Your task to perform on an android device: toggle javascript in the chrome app Image 0: 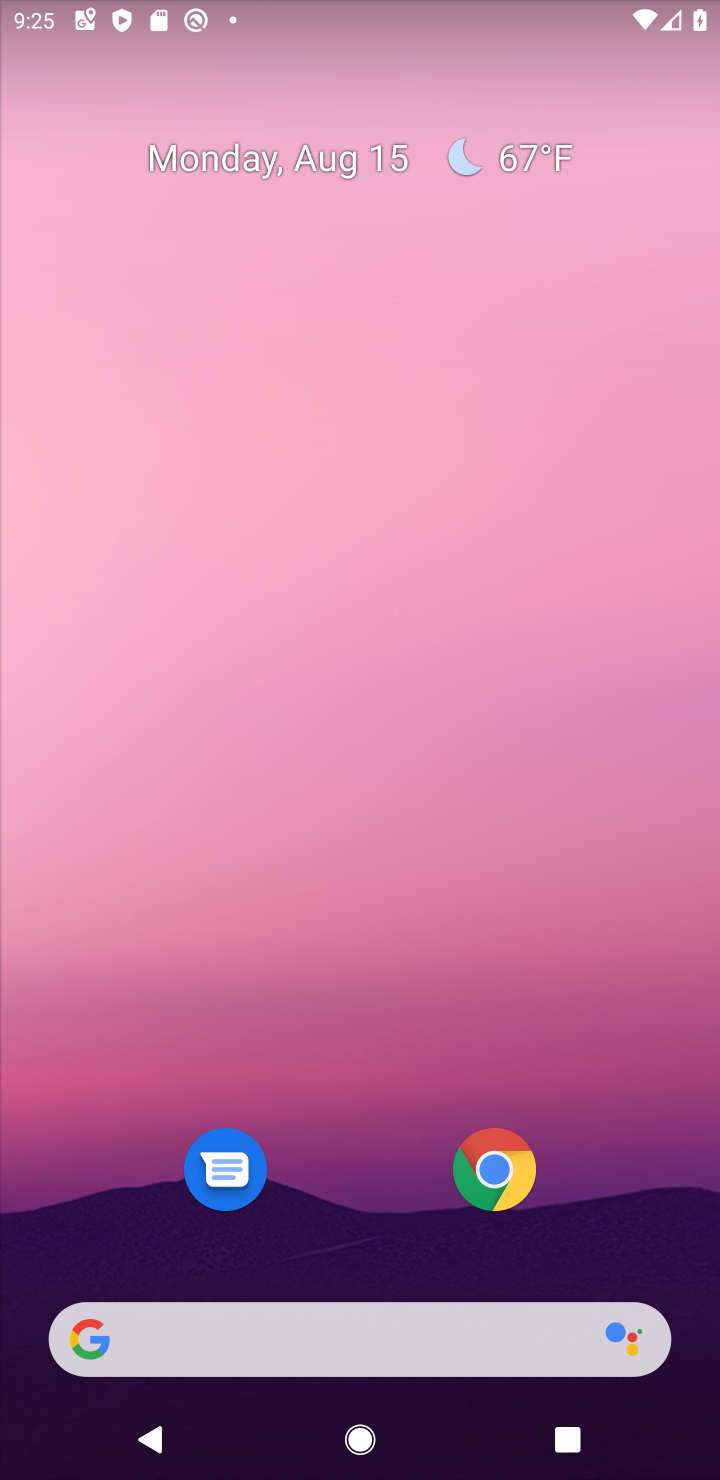
Step 0: click (496, 1175)
Your task to perform on an android device: toggle javascript in the chrome app Image 1: 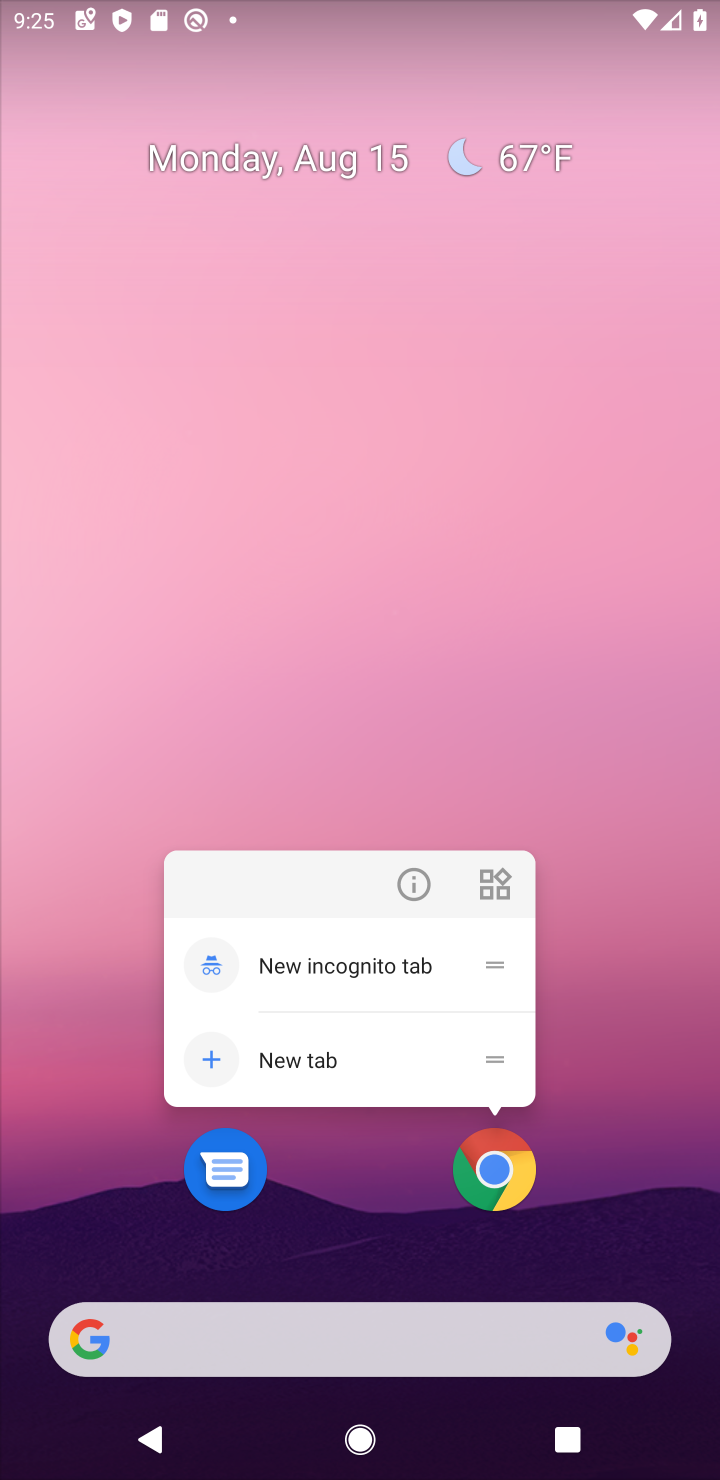
Step 1: click (496, 1179)
Your task to perform on an android device: toggle javascript in the chrome app Image 2: 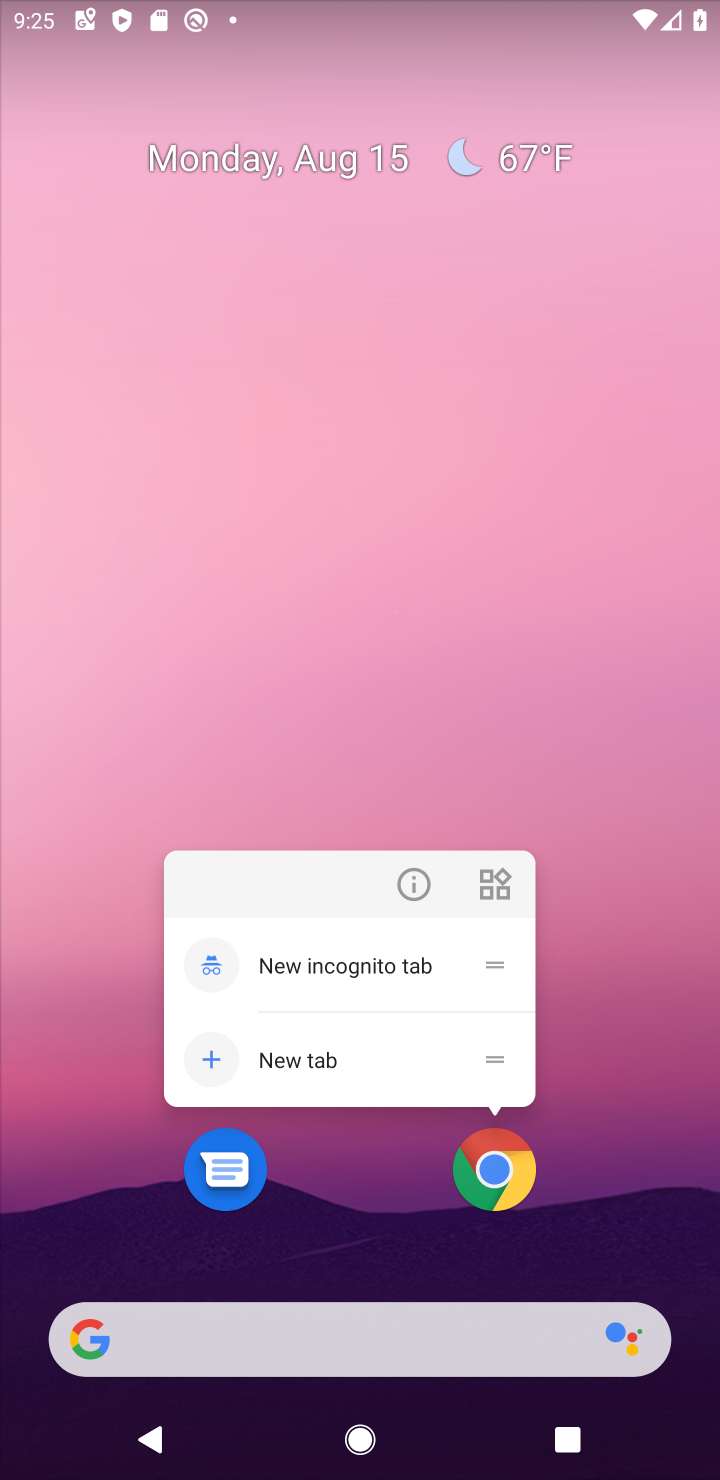
Step 2: click (496, 1179)
Your task to perform on an android device: toggle javascript in the chrome app Image 3: 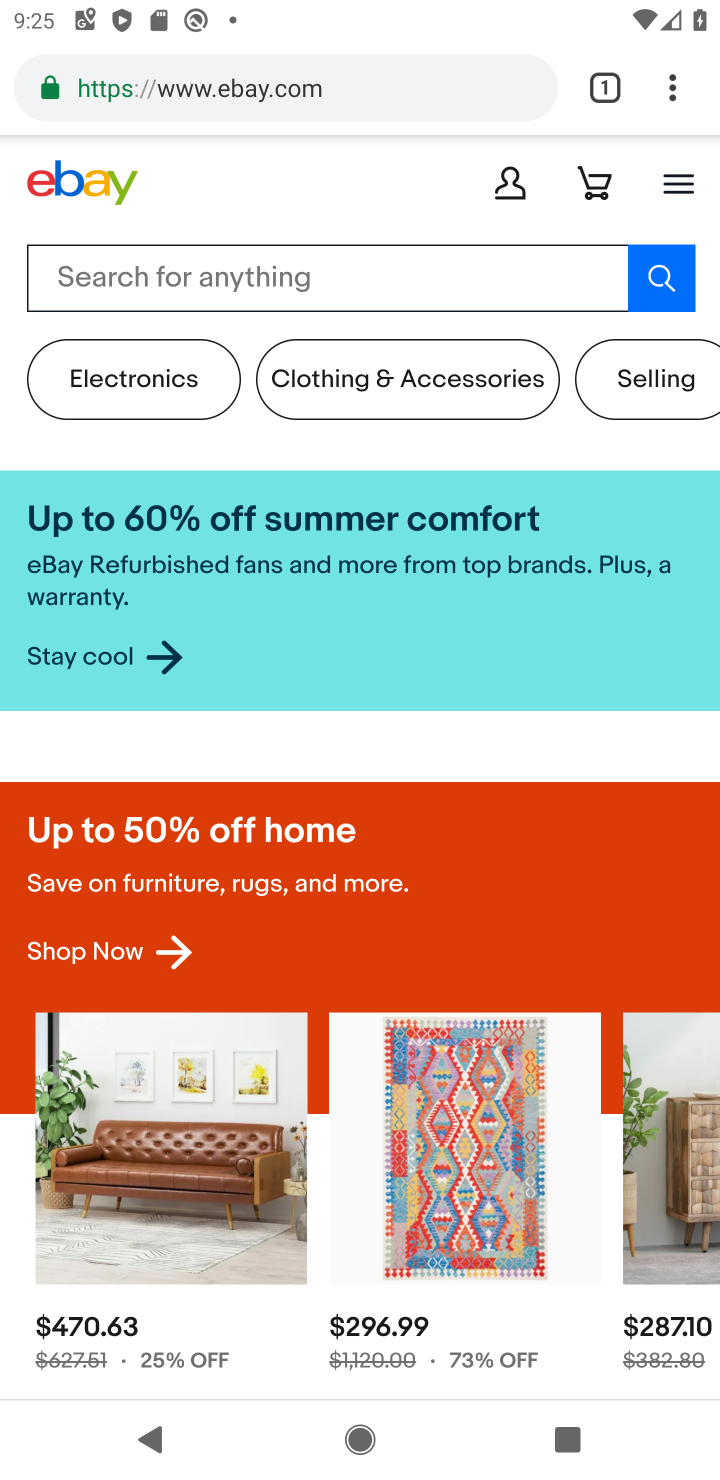
Step 3: drag from (676, 80) to (343, 1061)
Your task to perform on an android device: toggle javascript in the chrome app Image 4: 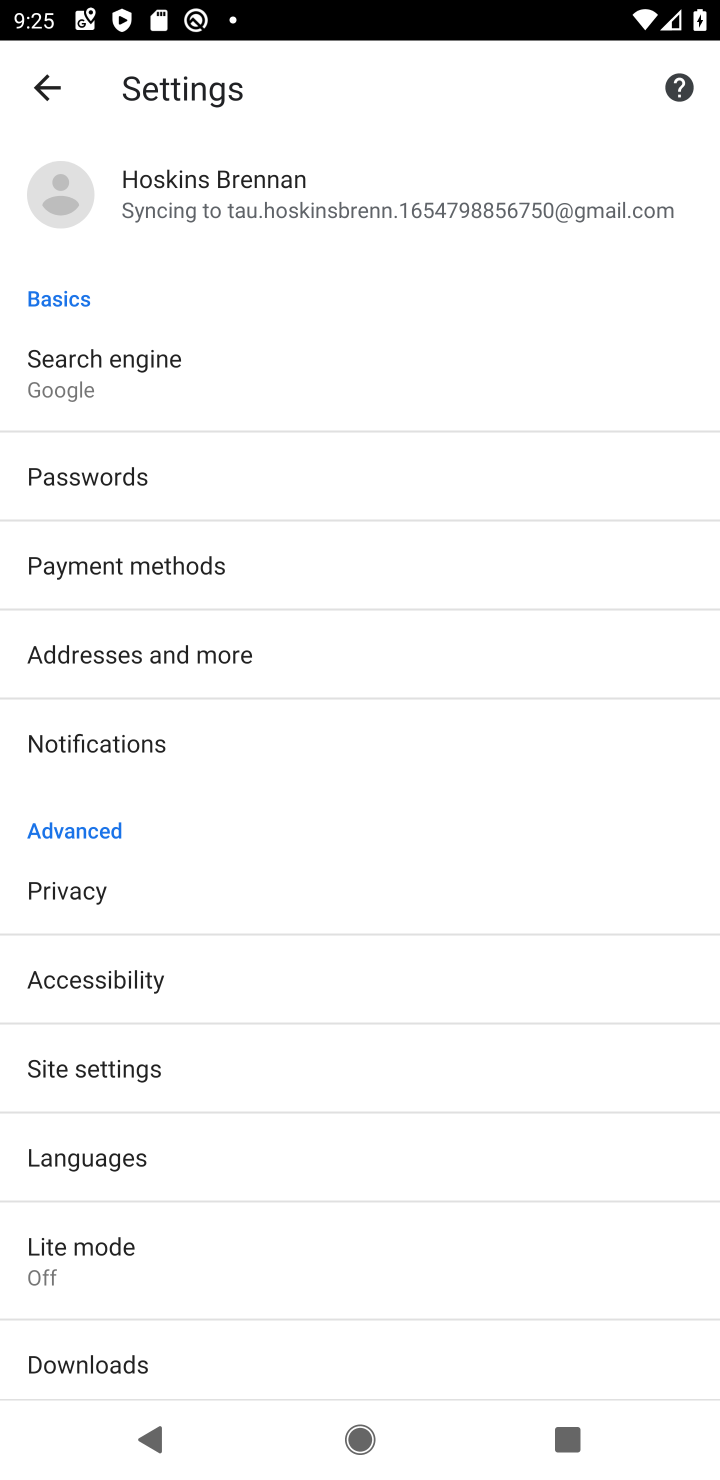
Step 4: drag from (250, 1185) to (436, 545)
Your task to perform on an android device: toggle javascript in the chrome app Image 5: 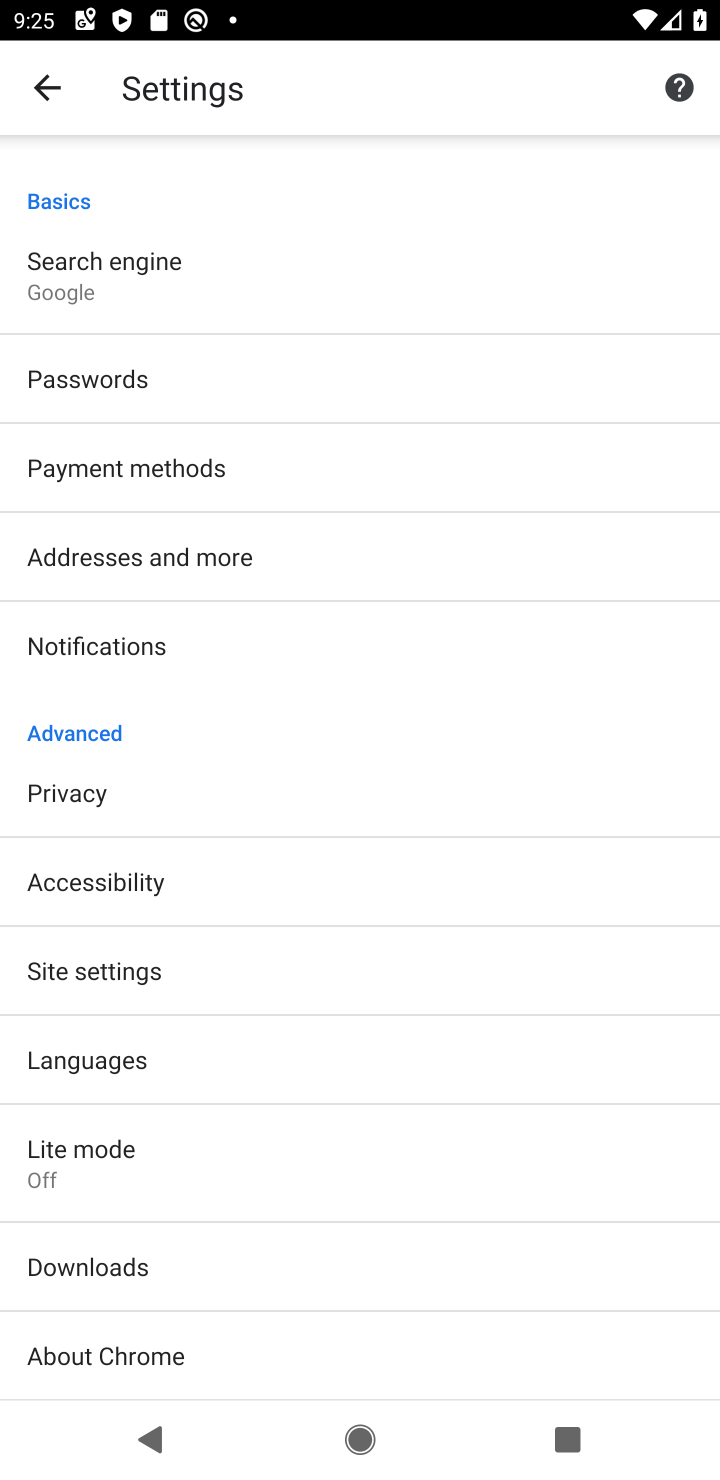
Step 5: click (149, 971)
Your task to perform on an android device: toggle javascript in the chrome app Image 6: 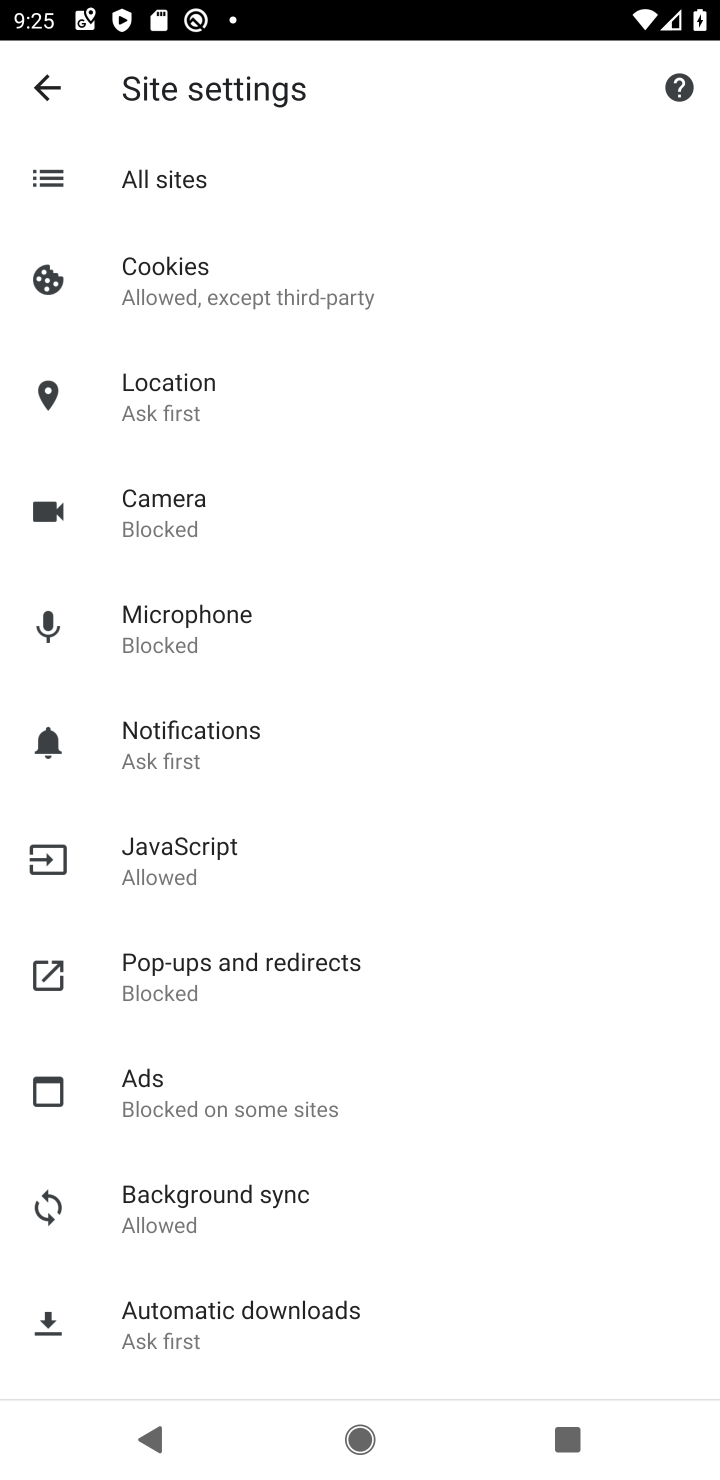
Step 6: click (173, 856)
Your task to perform on an android device: toggle javascript in the chrome app Image 7: 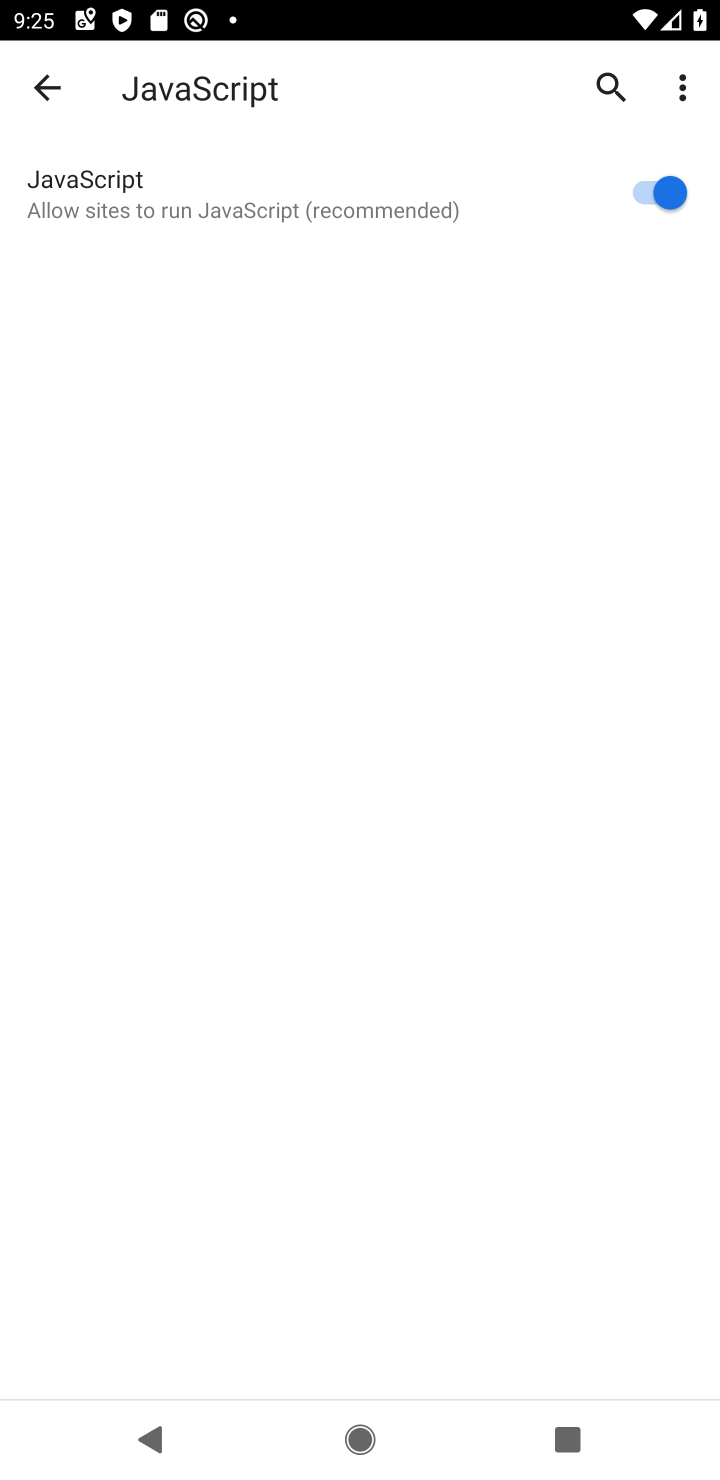
Step 7: click (651, 191)
Your task to perform on an android device: toggle javascript in the chrome app Image 8: 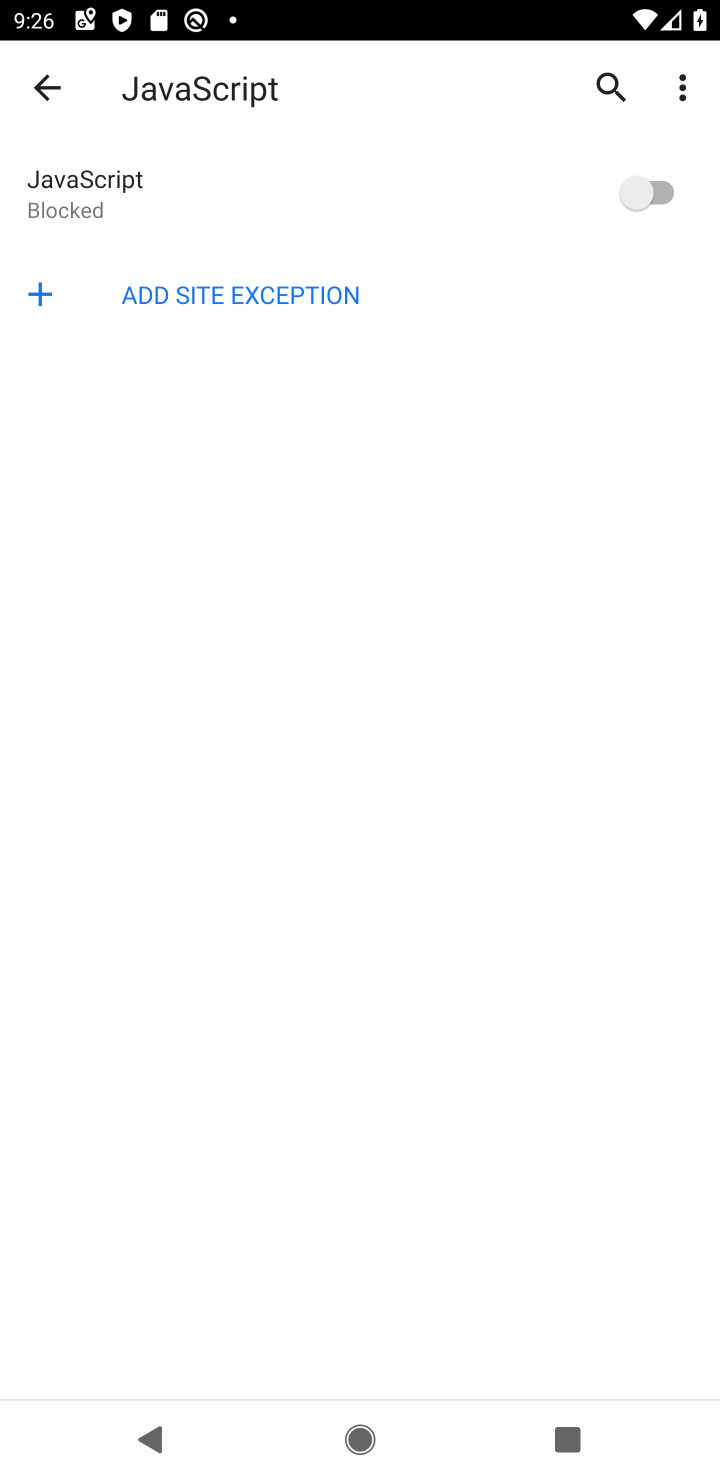
Step 8: task complete